Your task to perform on an android device: Do I have any events this weekend? Image 0: 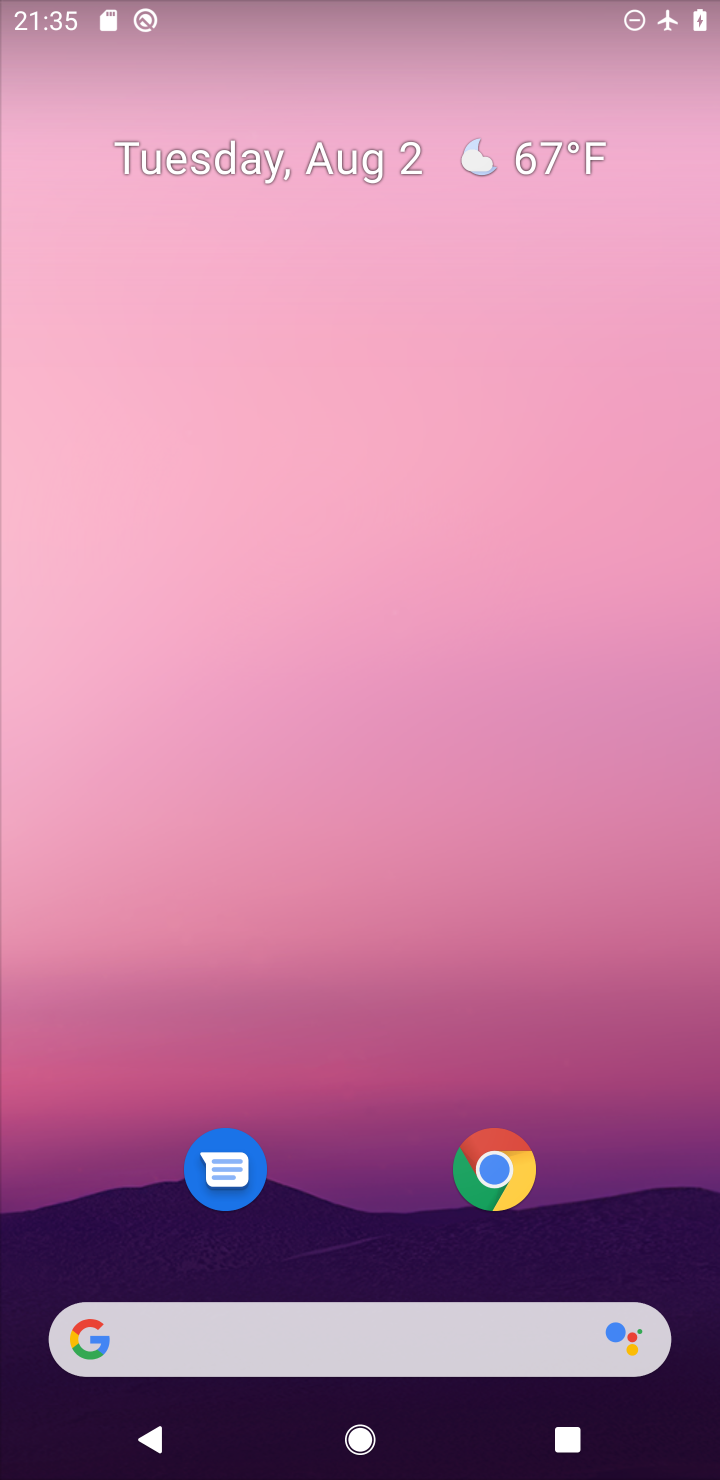
Step 0: drag from (377, 988) to (377, 69)
Your task to perform on an android device: Do I have any events this weekend? Image 1: 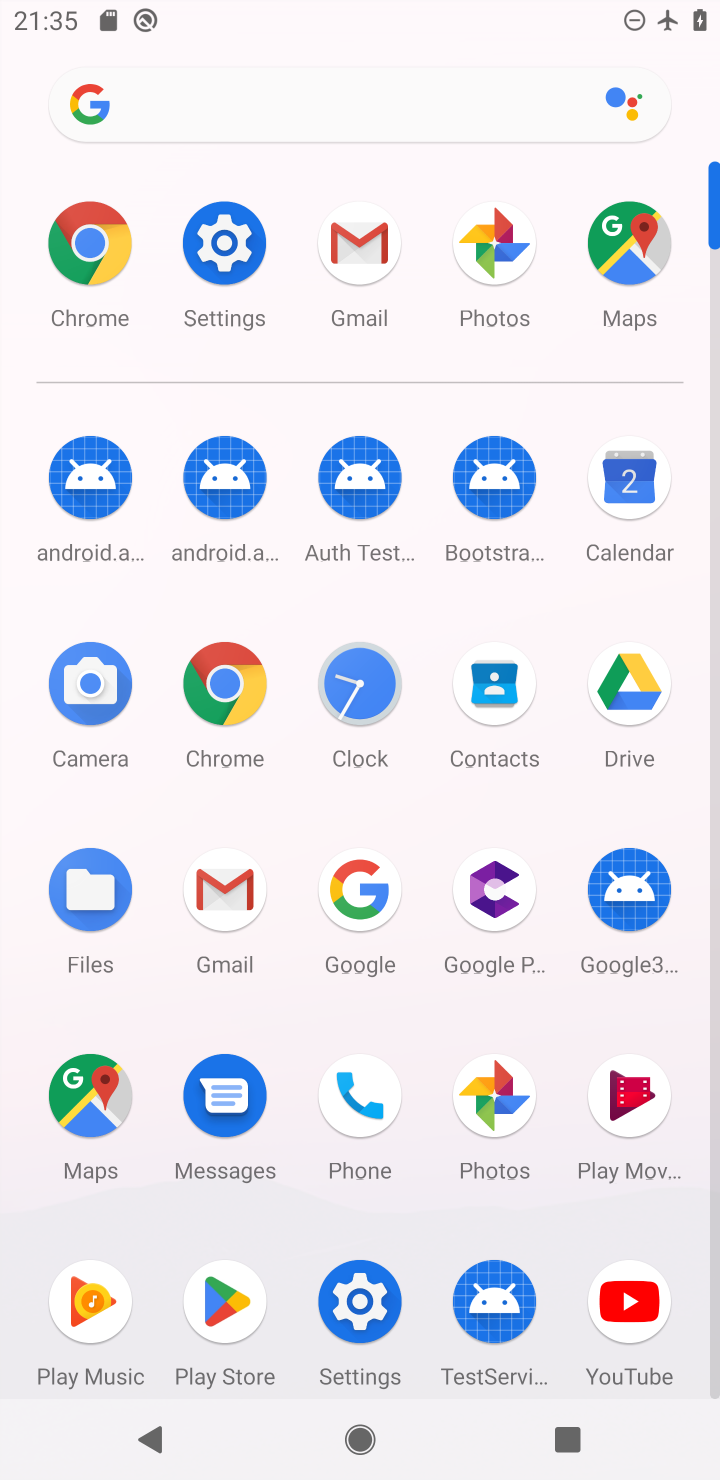
Step 1: click (622, 485)
Your task to perform on an android device: Do I have any events this weekend? Image 2: 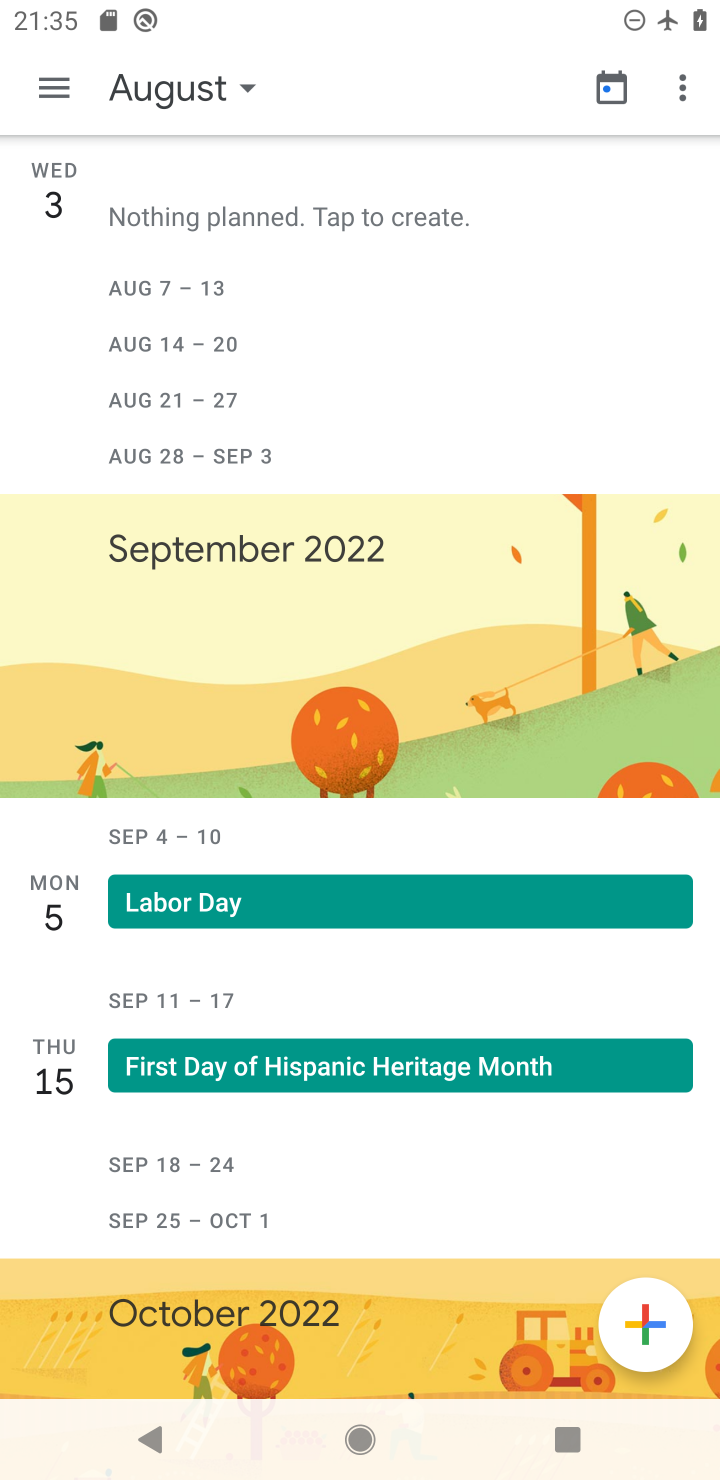
Step 2: click (41, 86)
Your task to perform on an android device: Do I have any events this weekend? Image 3: 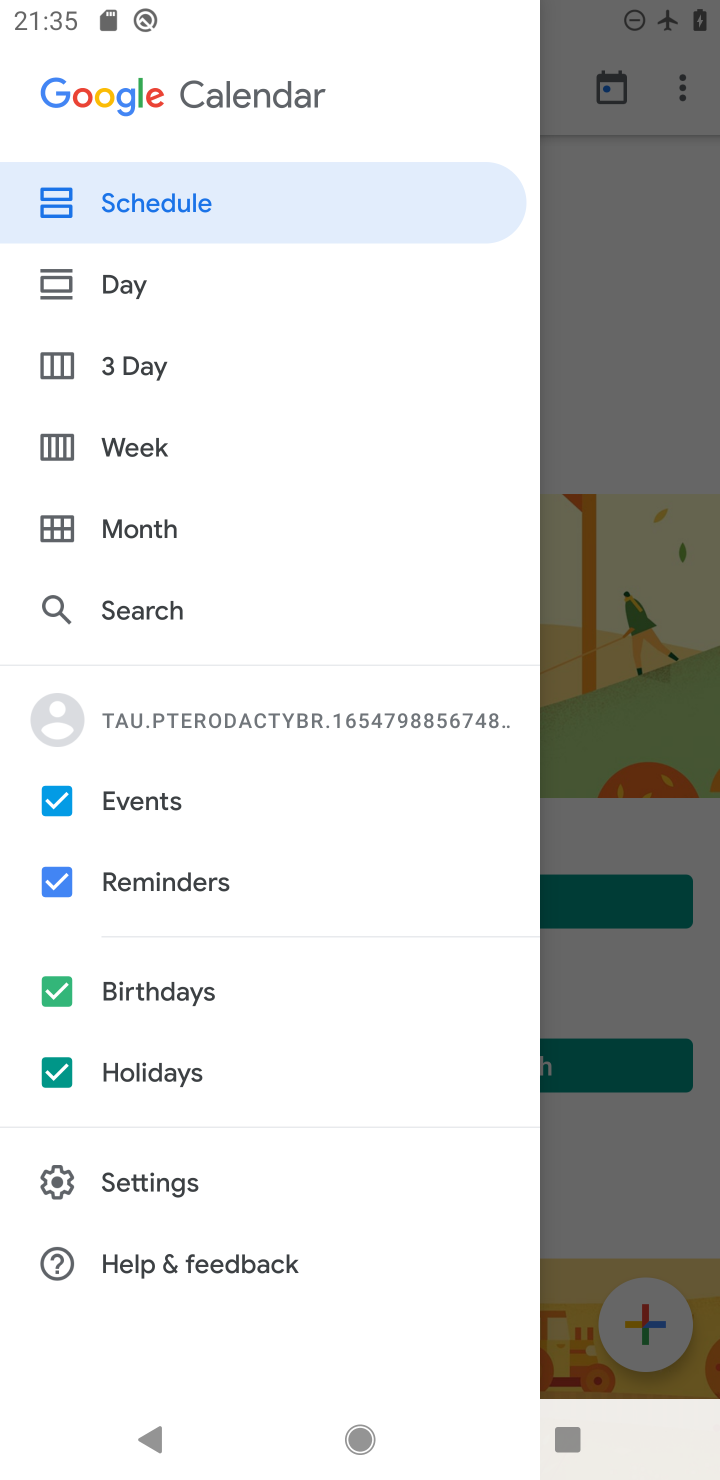
Step 3: click (39, 1068)
Your task to perform on an android device: Do I have any events this weekend? Image 4: 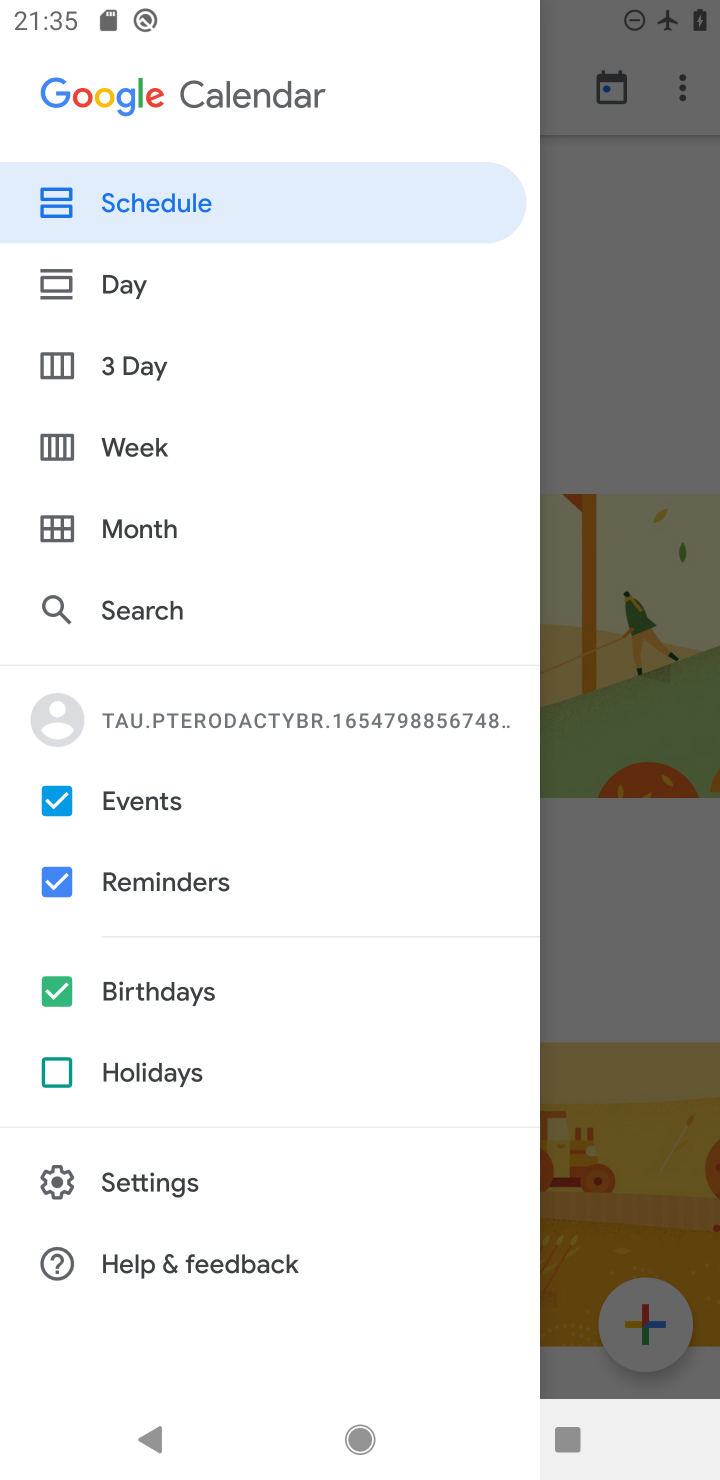
Step 4: click (62, 972)
Your task to perform on an android device: Do I have any events this weekend? Image 5: 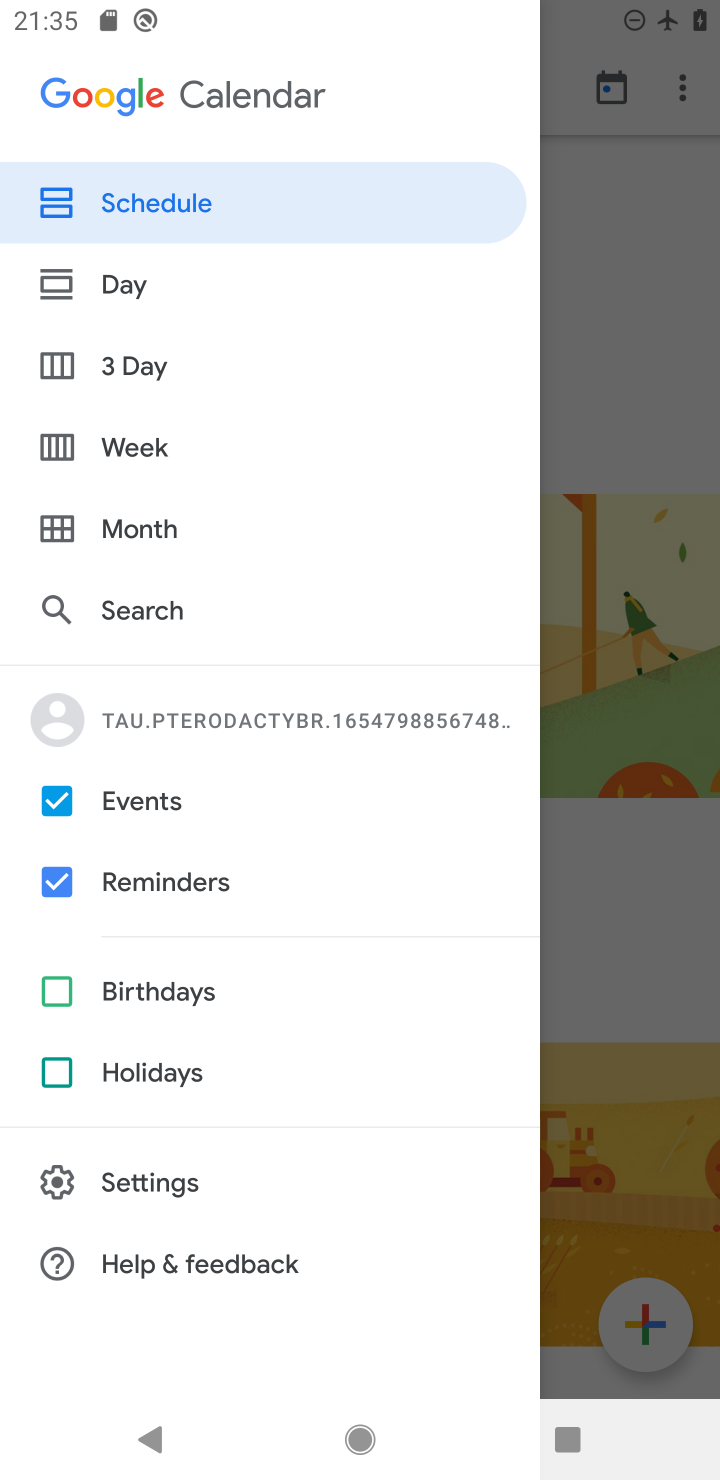
Step 5: click (57, 861)
Your task to perform on an android device: Do I have any events this weekend? Image 6: 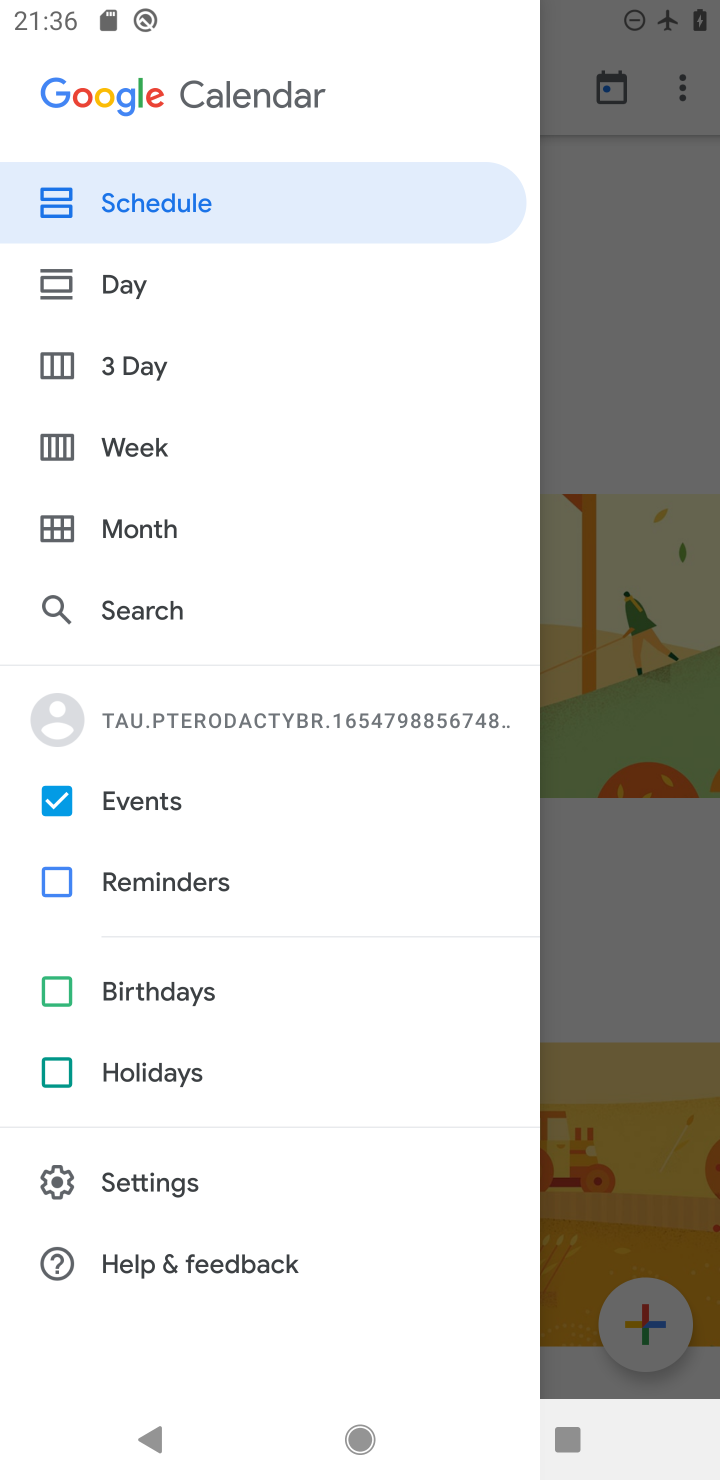
Step 6: click (126, 443)
Your task to perform on an android device: Do I have any events this weekend? Image 7: 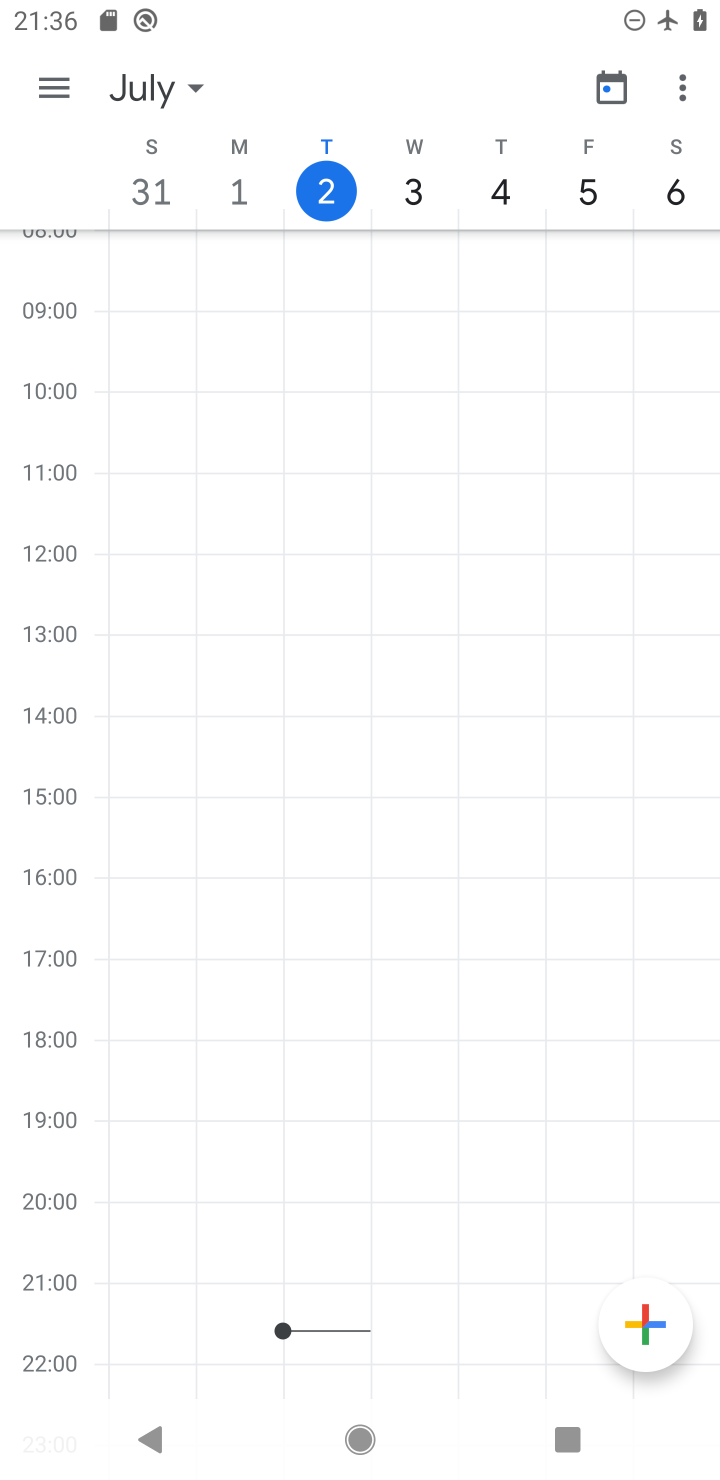
Step 7: click (672, 180)
Your task to perform on an android device: Do I have any events this weekend? Image 8: 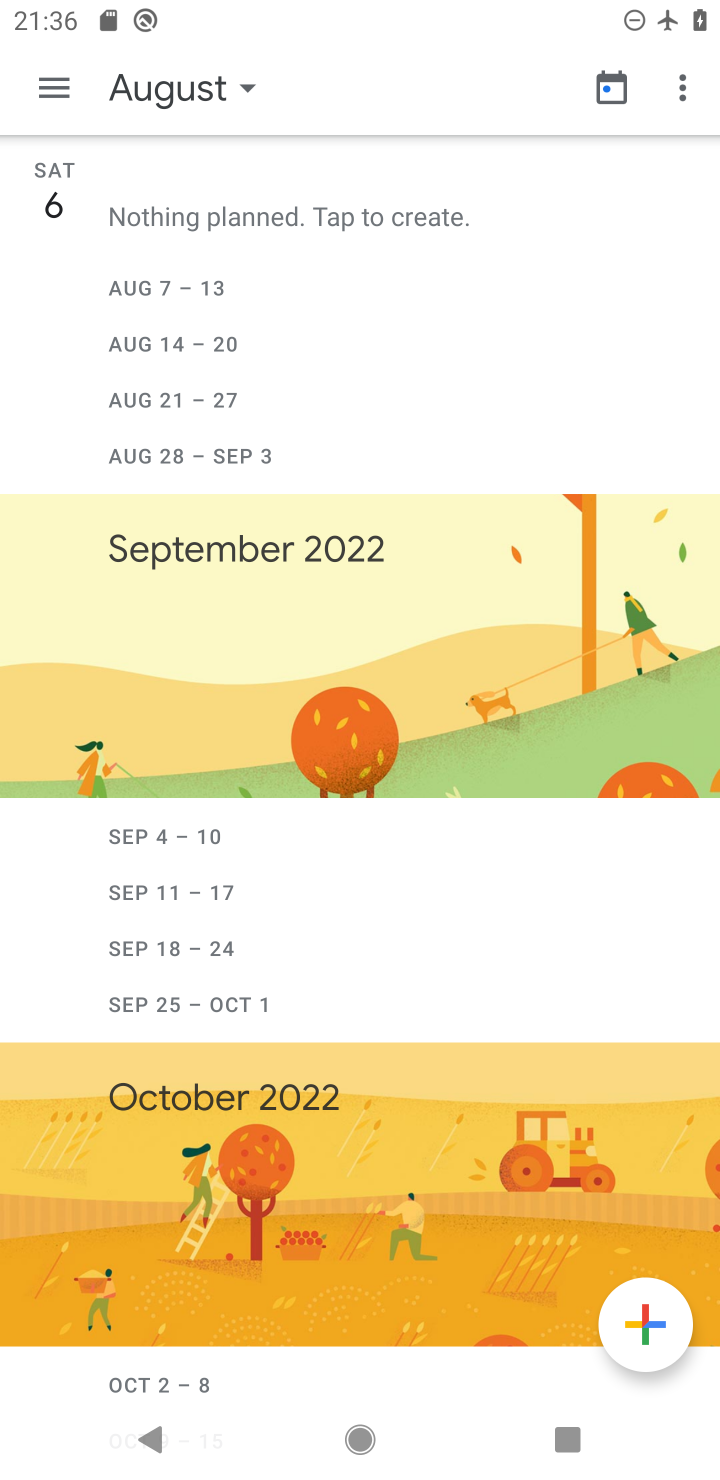
Step 8: task complete